Your task to perform on an android device: check android version Image 0: 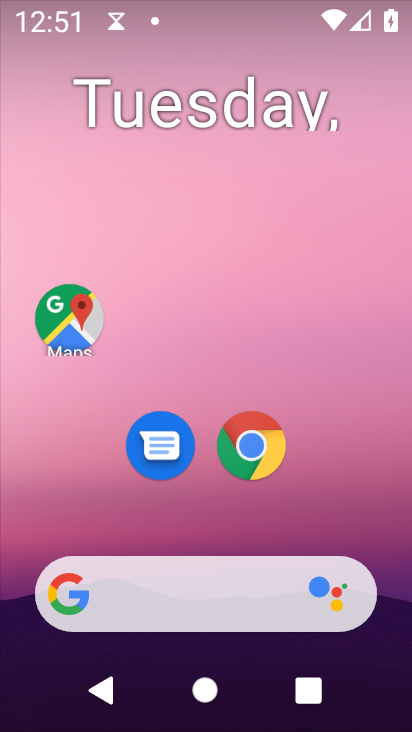
Step 0: drag from (347, 578) to (336, 45)
Your task to perform on an android device: check android version Image 1: 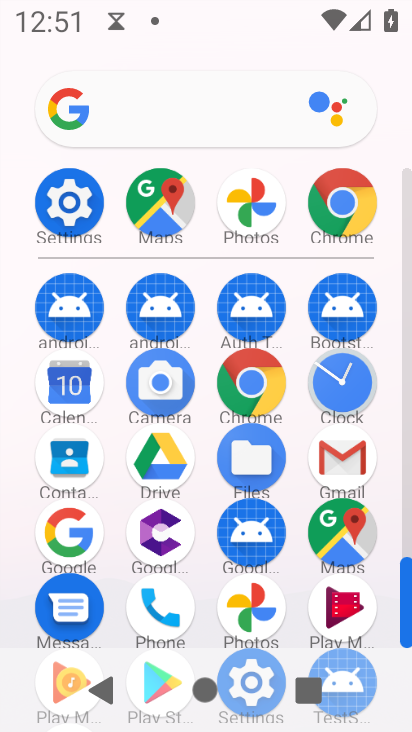
Step 1: click (83, 218)
Your task to perform on an android device: check android version Image 2: 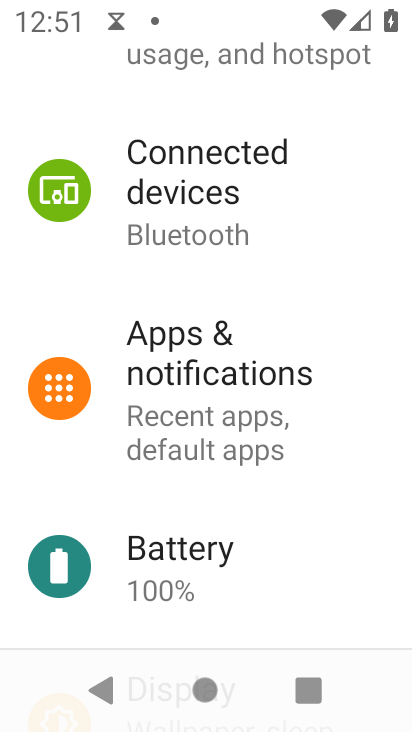
Step 2: drag from (279, 614) to (280, 51)
Your task to perform on an android device: check android version Image 3: 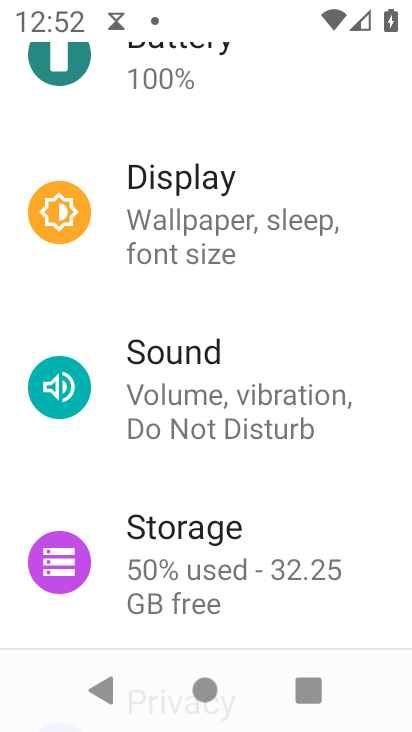
Step 3: drag from (319, 611) to (334, 125)
Your task to perform on an android device: check android version Image 4: 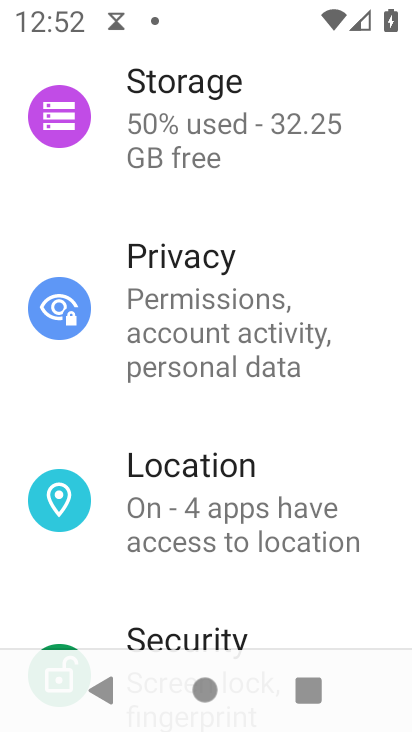
Step 4: drag from (320, 623) to (292, 122)
Your task to perform on an android device: check android version Image 5: 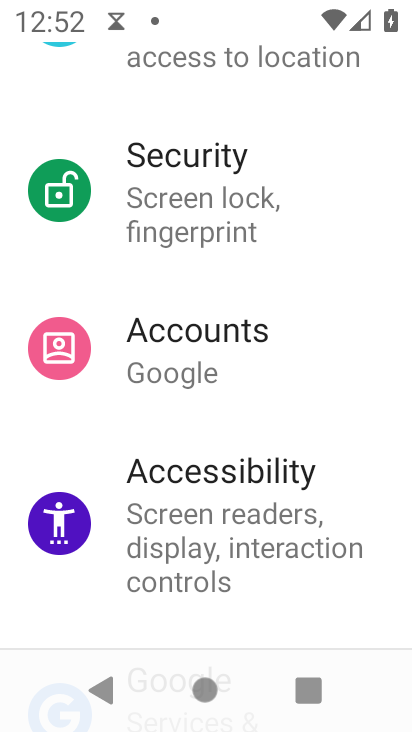
Step 5: drag from (296, 633) to (264, 179)
Your task to perform on an android device: check android version Image 6: 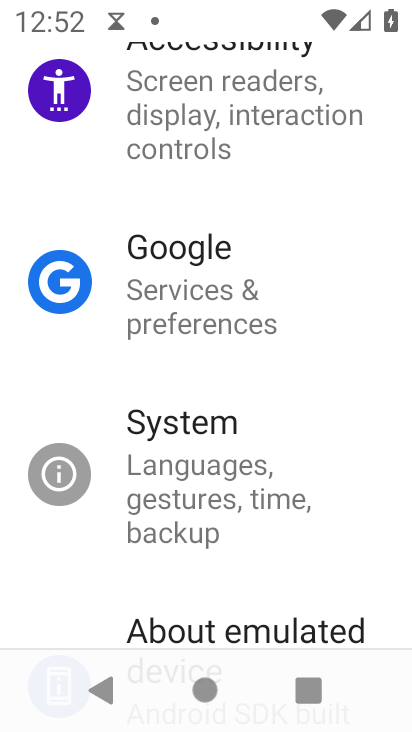
Step 6: drag from (257, 611) to (279, 133)
Your task to perform on an android device: check android version Image 7: 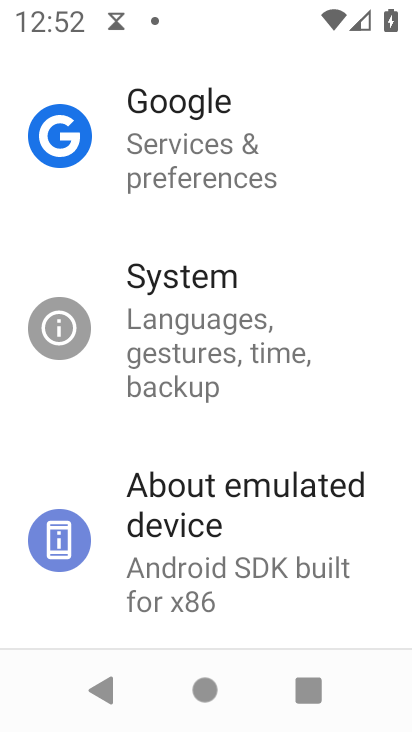
Step 7: click (317, 576)
Your task to perform on an android device: check android version Image 8: 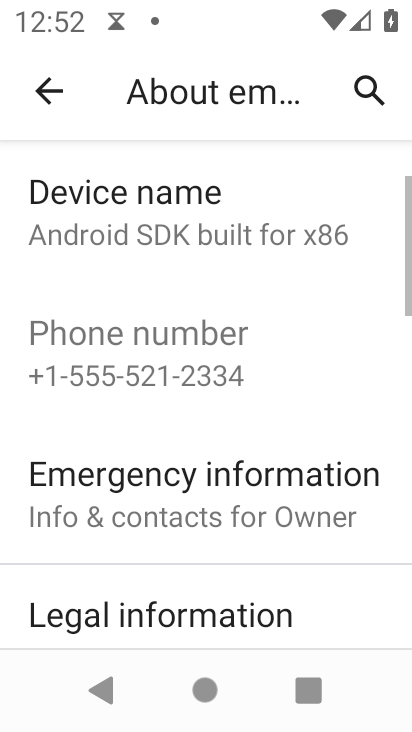
Step 8: drag from (317, 576) to (387, 117)
Your task to perform on an android device: check android version Image 9: 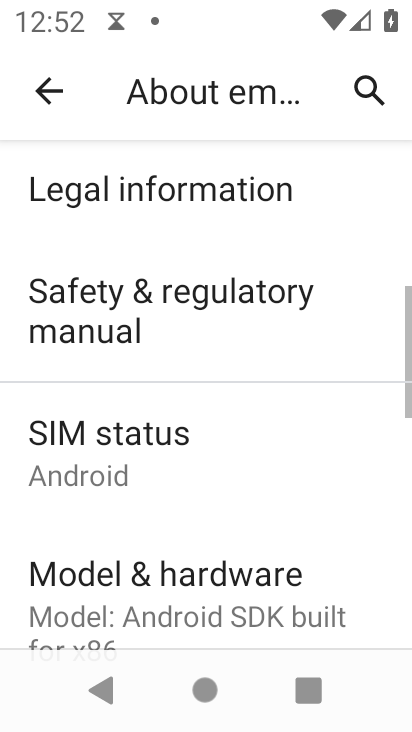
Step 9: drag from (319, 595) to (346, 113)
Your task to perform on an android device: check android version Image 10: 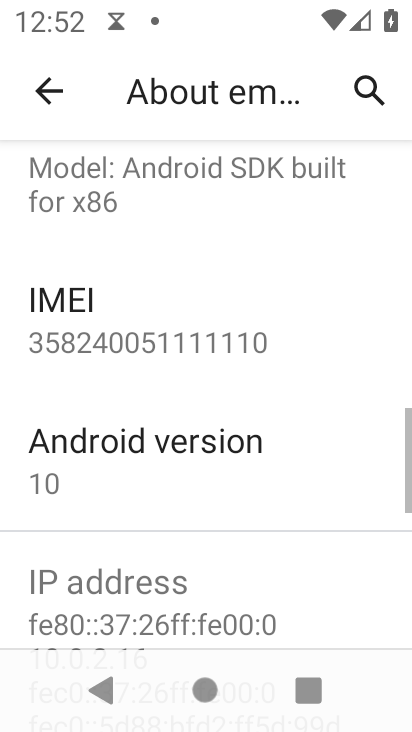
Step 10: click (243, 460)
Your task to perform on an android device: check android version Image 11: 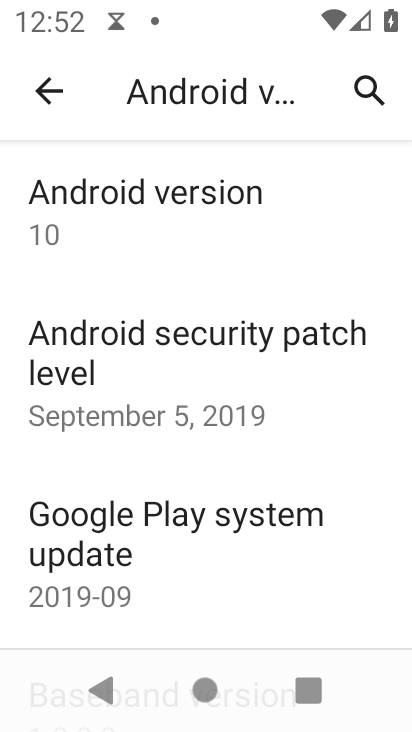
Step 11: task complete